Your task to perform on an android device: Open calendar and show me the fourth week of next month Image 0: 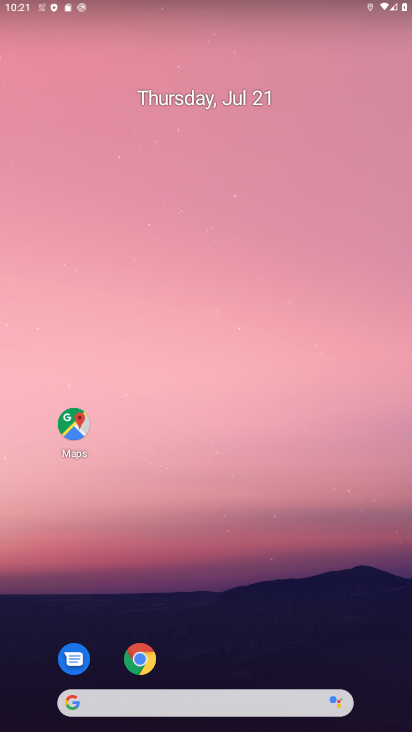
Step 0: drag from (229, 670) to (37, 106)
Your task to perform on an android device: Open calendar and show me the fourth week of next month Image 1: 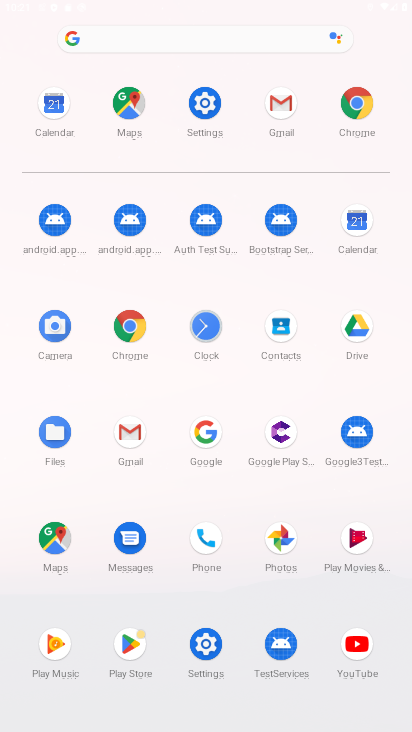
Step 1: click (352, 220)
Your task to perform on an android device: Open calendar and show me the fourth week of next month Image 2: 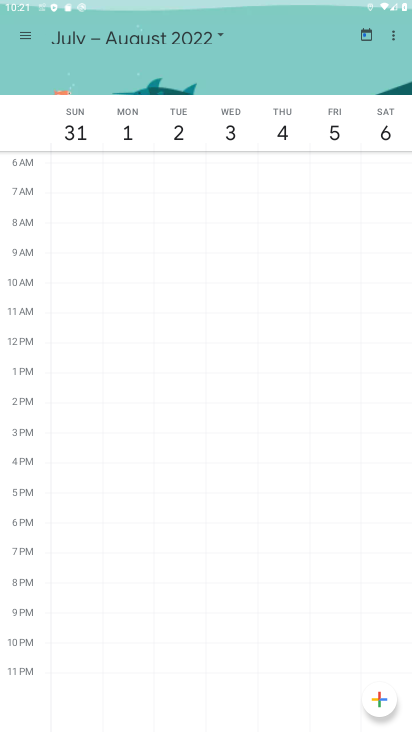
Step 2: task complete